Your task to perform on an android device: Go to Yahoo.com Image 0: 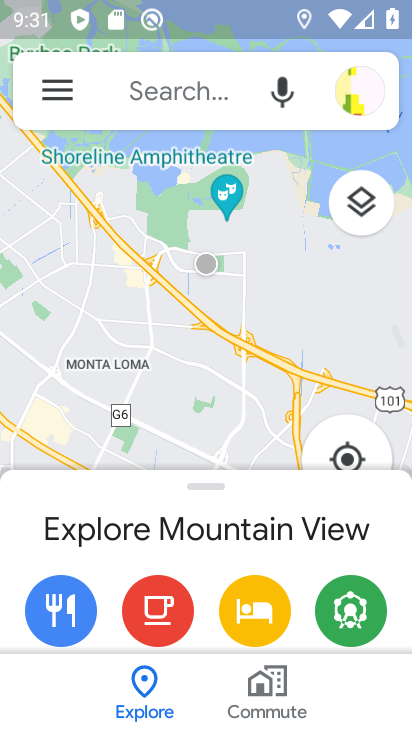
Step 0: press home button
Your task to perform on an android device: Go to Yahoo.com Image 1: 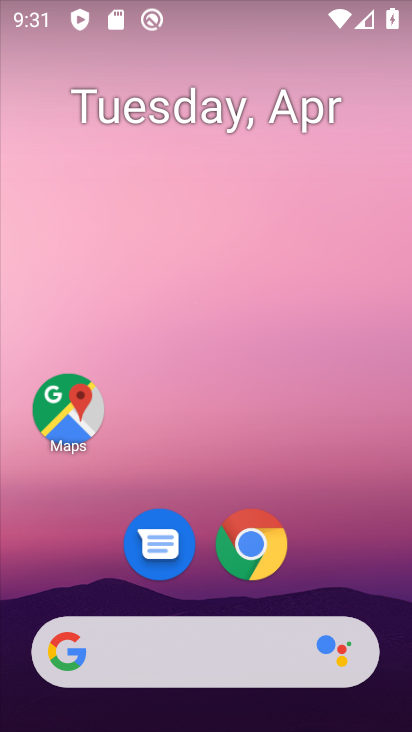
Step 1: click (265, 556)
Your task to perform on an android device: Go to Yahoo.com Image 2: 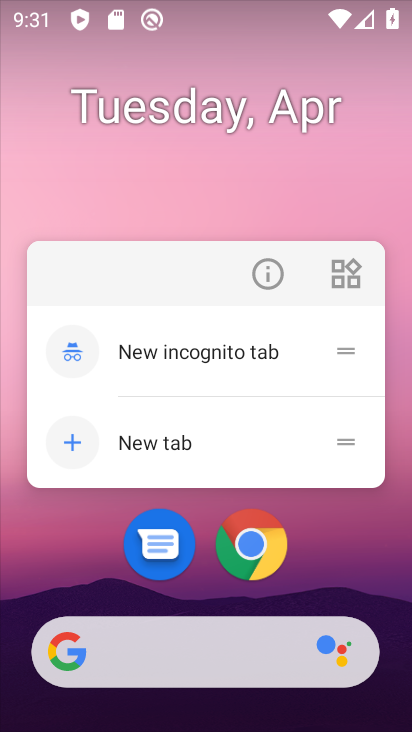
Step 2: click (244, 552)
Your task to perform on an android device: Go to Yahoo.com Image 3: 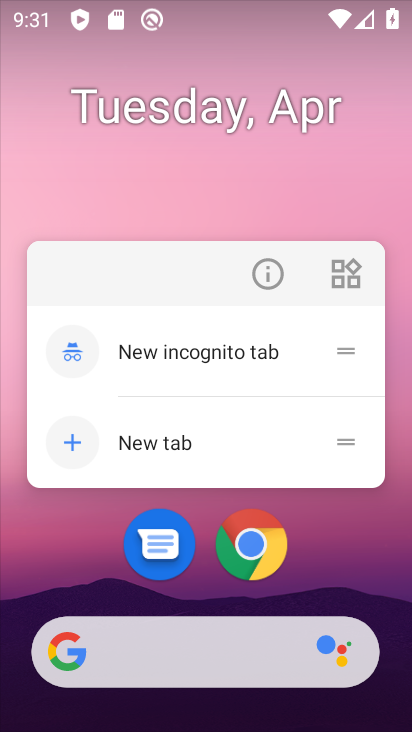
Step 3: click (250, 555)
Your task to perform on an android device: Go to Yahoo.com Image 4: 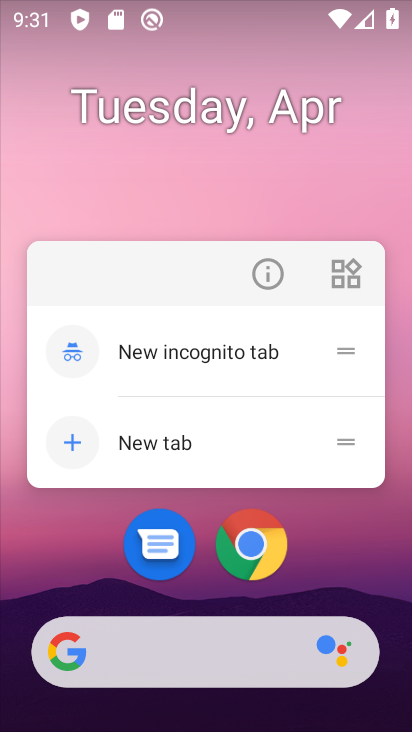
Step 4: click (250, 550)
Your task to perform on an android device: Go to Yahoo.com Image 5: 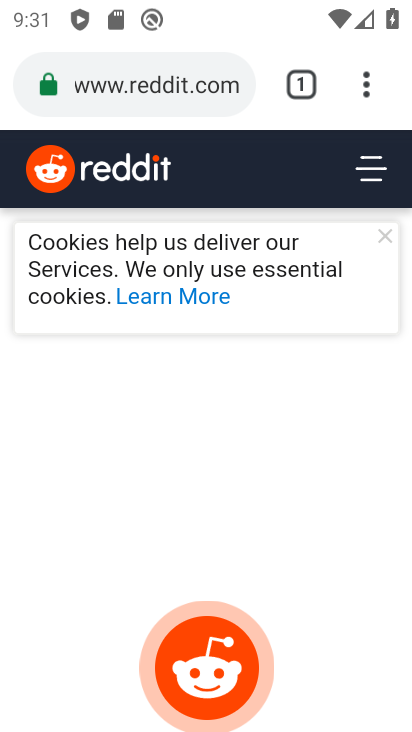
Step 5: click (165, 88)
Your task to perform on an android device: Go to Yahoo.com Image 6: 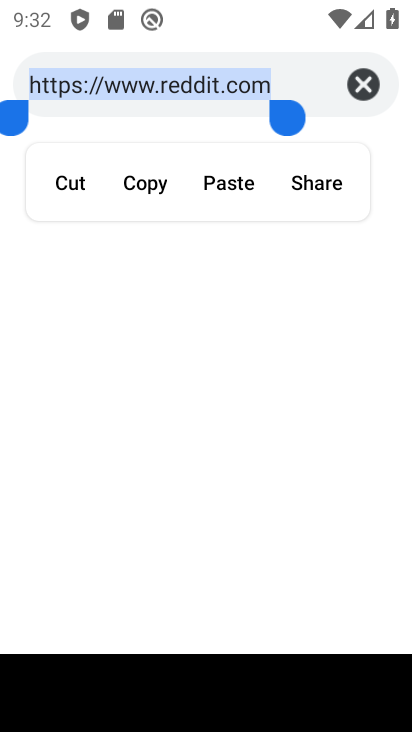
Step 6: type "yahoo.com"
Your task to perform on an android device: Go to Yahoo.com Image 7: 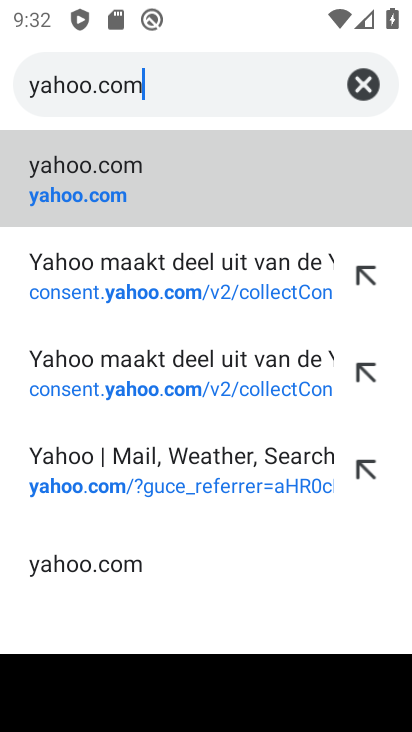
Step 7: click (62, 200)
Your task to perform on an android device: Go to Yahoo.com Image 8: 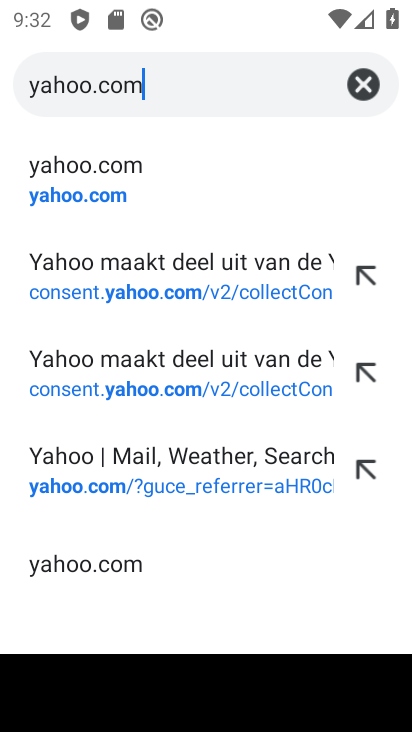
Step 8: click (102, 194)
Your task to perform on an android device: Go to Yahoo.com Image 9: 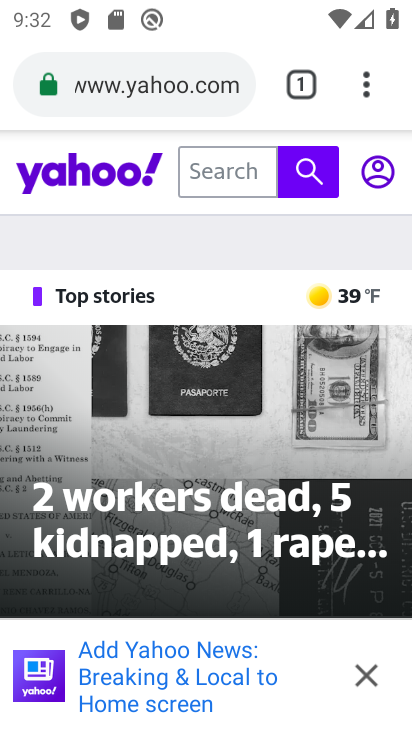
Step 9: task complete